Your task to perform on an android device: open app "PlayWell" (install if not already installed) Image 0: 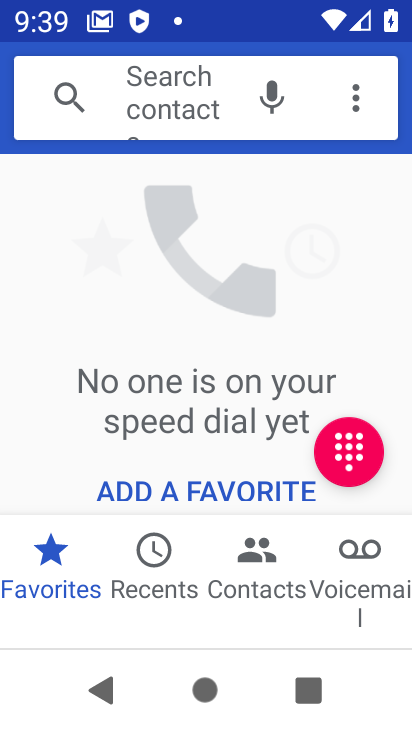
Step 0: press home button
Your task to perform on an android device: open app "PlayWell" (install if not already installed) Image 1: 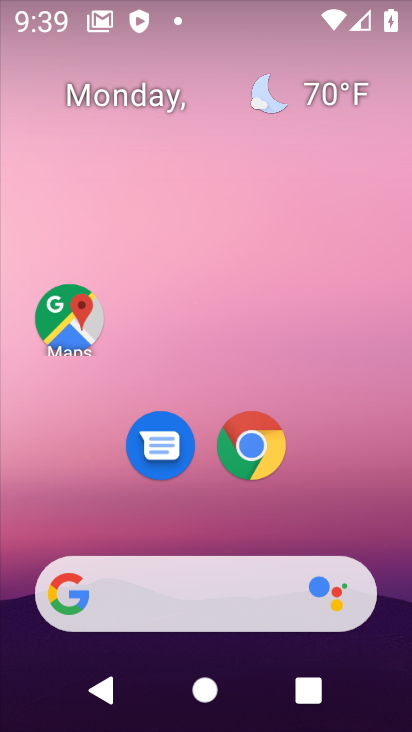
Step 1: drag from (207, 598) to (261, 140)
Your task to perform on an android device: open app "PlayWell" (install if not already installed) Image 2: 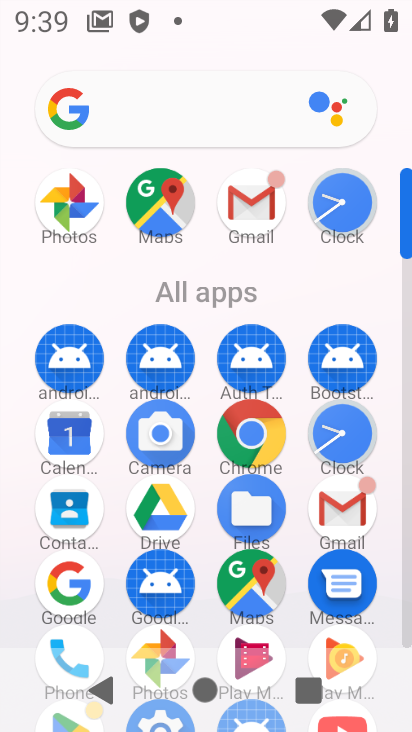
Step 2: drag from (280, 366) to (312, 129)
Your task to perform on an android device: open app "PlayWell" (install if not already installed) Image 3: 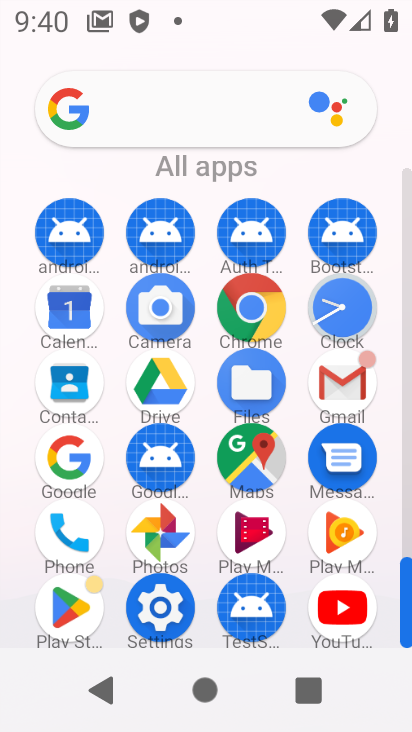
Step 3: click (69, 602)
Your task to perform on an android device: open app "PlayWell" (install if not already installed) Image 4: 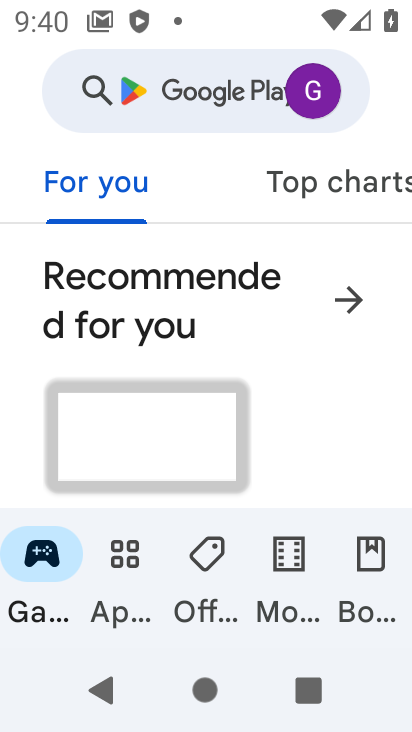
Step 4: click (211, 101)
Your task to perform on an android device: open app "PlayWell" (install if not already installed) Image 5: 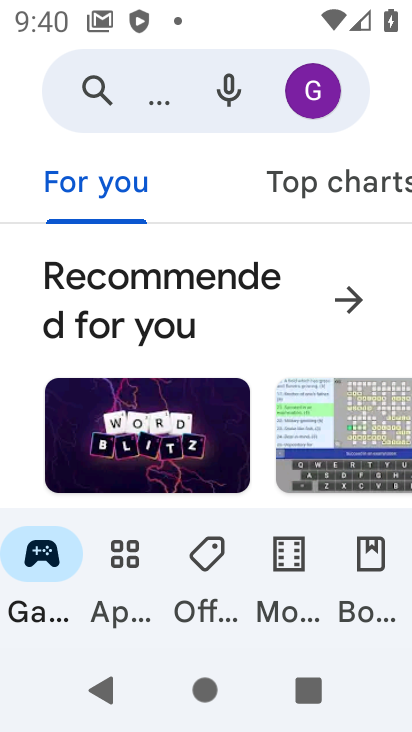
Step 5: click (181, 88)
Your task to perform on an android device: open app "PlayWell" (install if not already installed) Image 6: 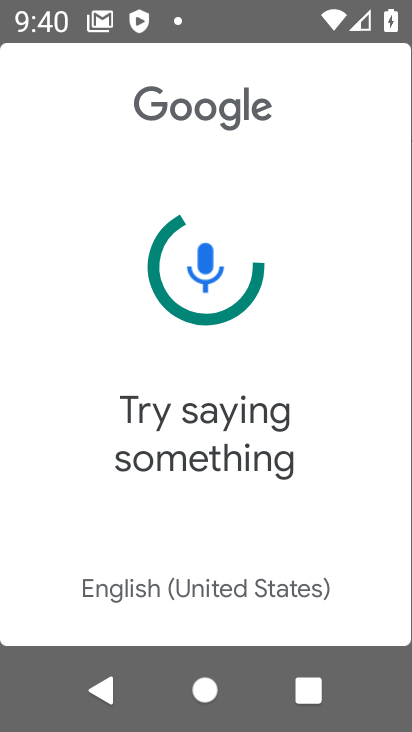
Step 6: click (121, 707)
Your task to perform on an android device: open app "PlayWell" (install if not already installed) Image 7: 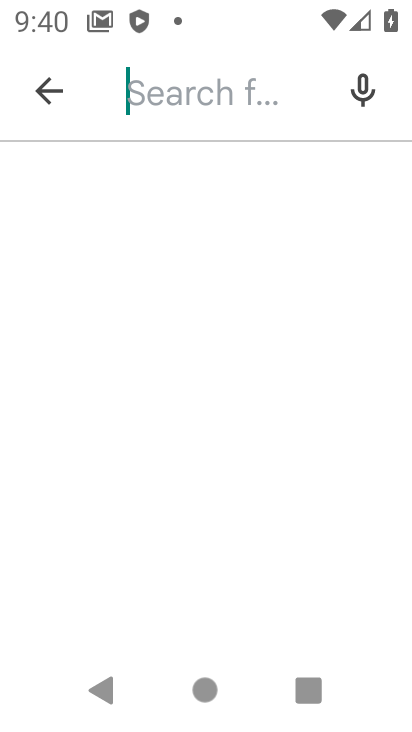
Step 7: type "PlayWell"
Your task to perform on an android device: open app "PlayWell" (install if not already installed) Image 8: 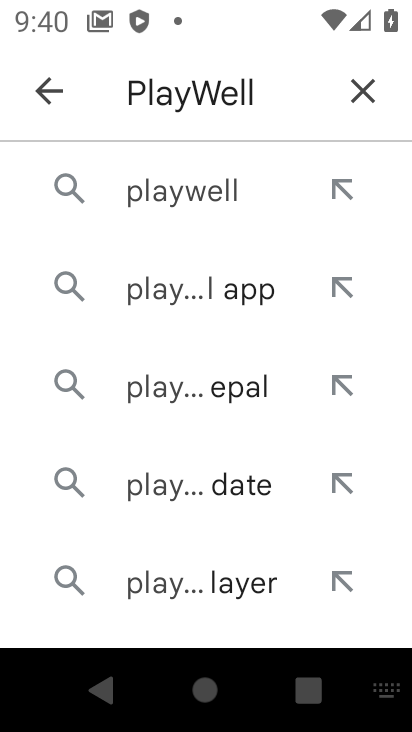
Step 8: click (239, 205)
Your task to perform on an android device: open app "PlayWell" (install if not already installed) Image 9: 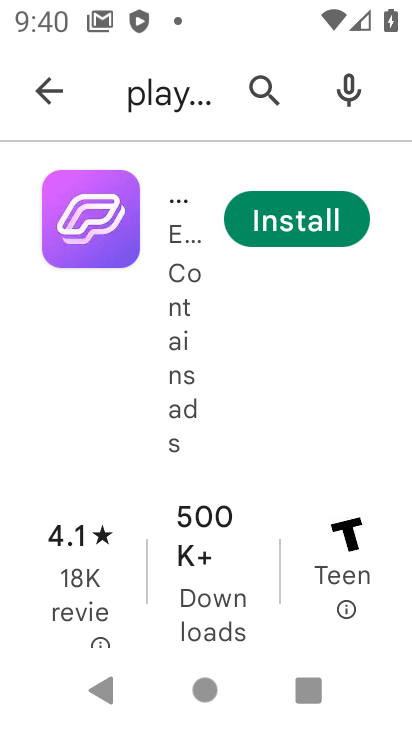
Step 9: click (289, 211)
Your task to perform on an android device: open app "PlayWell" (install if not already installed) Image 10: 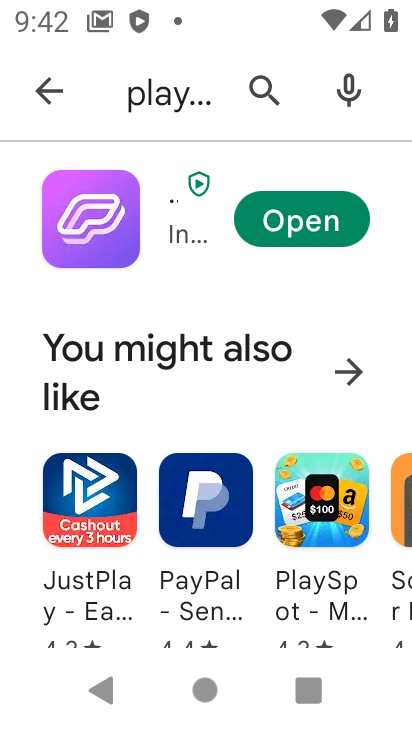
Step 10: click (307, 232)
Your task to perform on an android device: open app "PlayWell" (install if not already installed) Image 11: 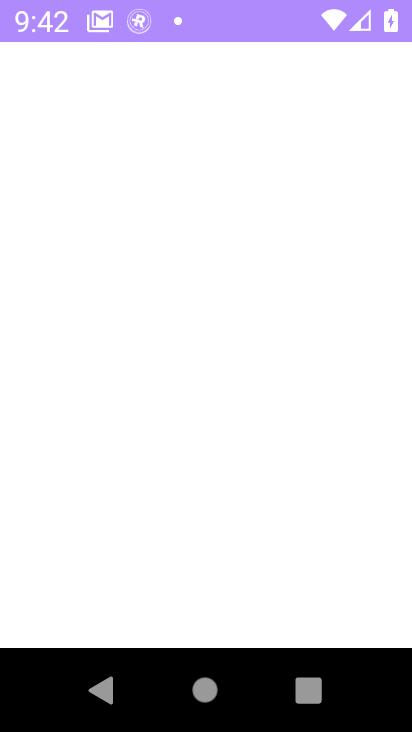
Step 11: task complete